Your task to perform on an android device: Is it going to rain this weekend? Image 0: 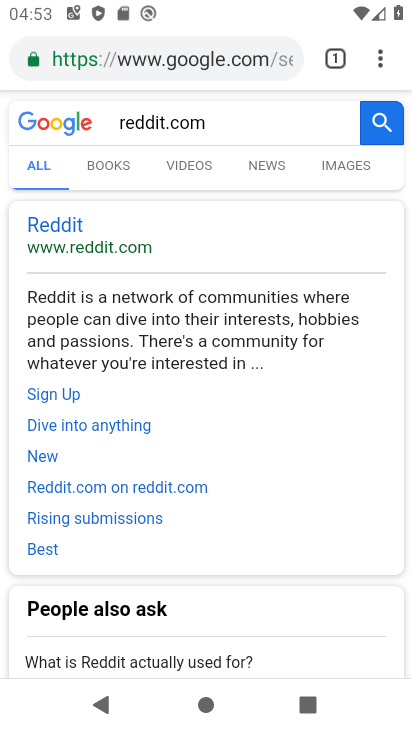
Step 0: press home button
Your task to perform on an android device: Is it going to rain this weekend? Image 1: 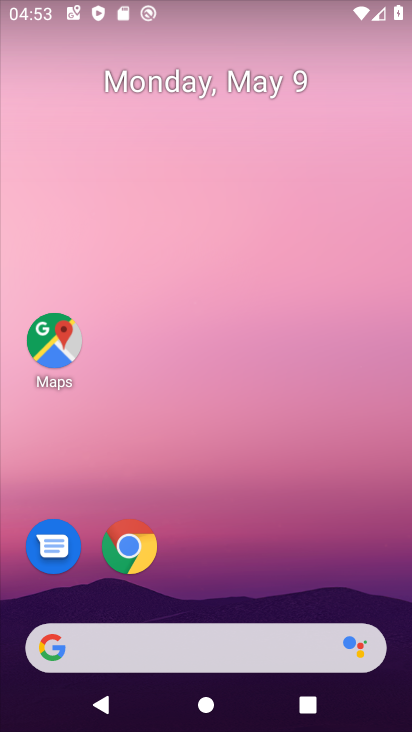
Step 1: click (197, 650)
Your task to perform on an android device: Is it going to rain this weekend? Image 2: 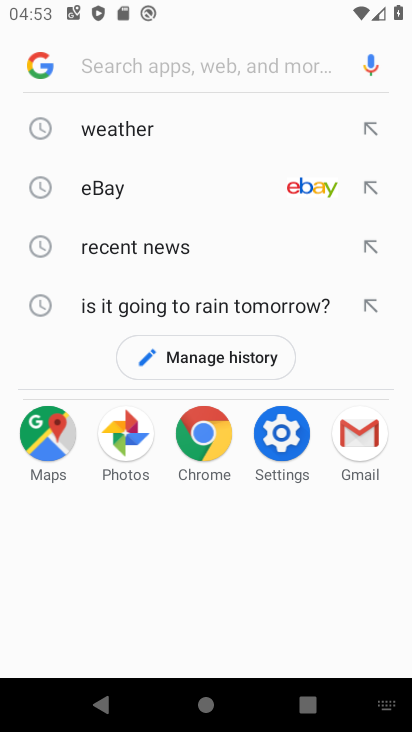
Step 2: click (194, 313)
Your task to perform on an android device: Is it going to rain this weekend? Image 3: 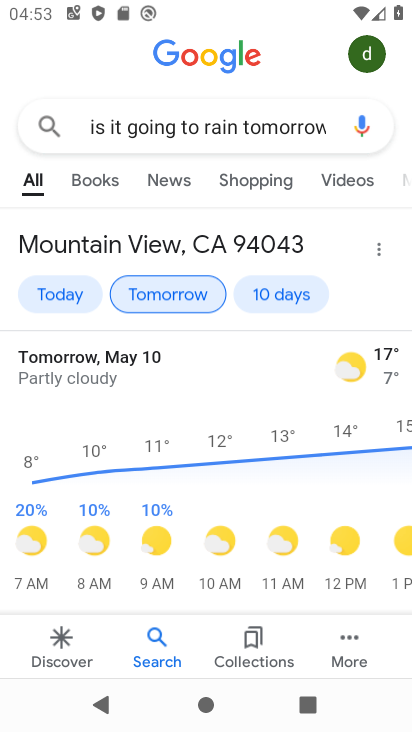
Step 3: click (274, 289)
Your task to perform on an android device: Is it going to rain this weekend? Image 4: 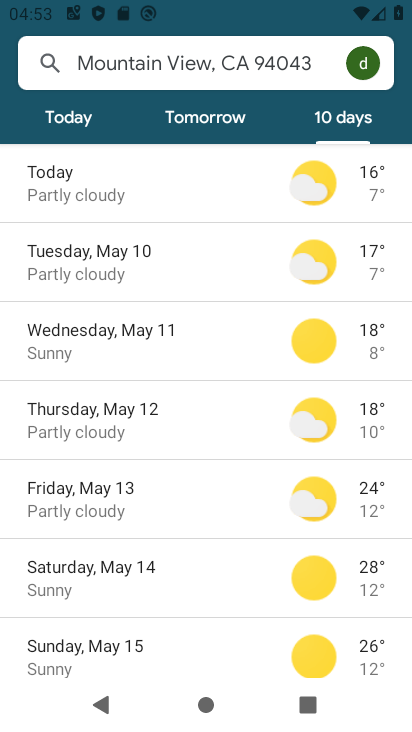
Step 4: task complete